Your task to perform on an android device: Check the weather Image 0: 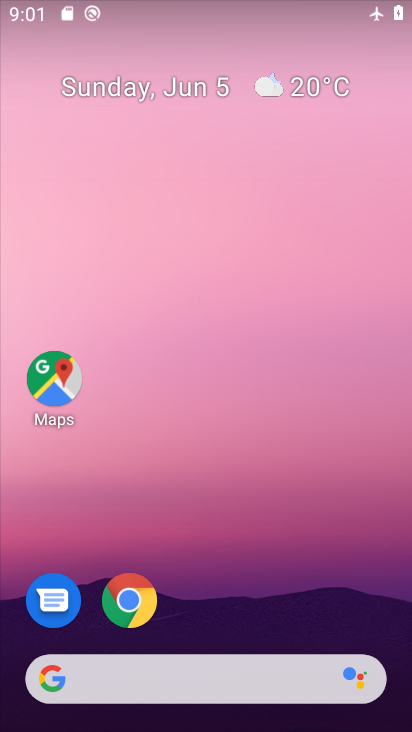
Step 0: click (280, 92)
Your task to perform on an android device: Check the weather Image 1: 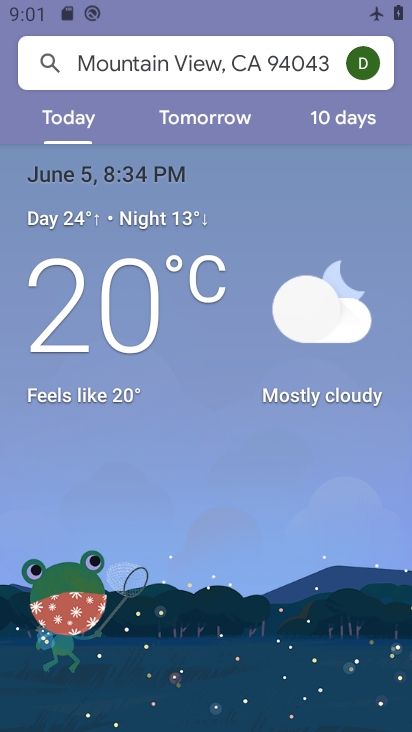
Step 1: task complete